Your task to perform on an android device: open sync settings in chrome Image 0: 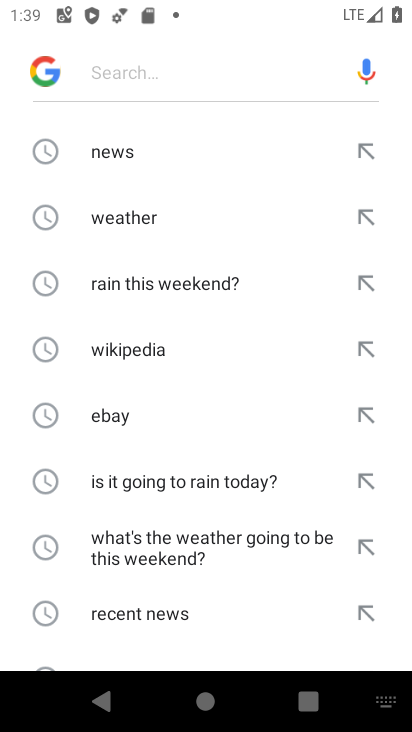
Step 0: press home button
Your task to perform on an android device: open sync settings in chrome Image 1: 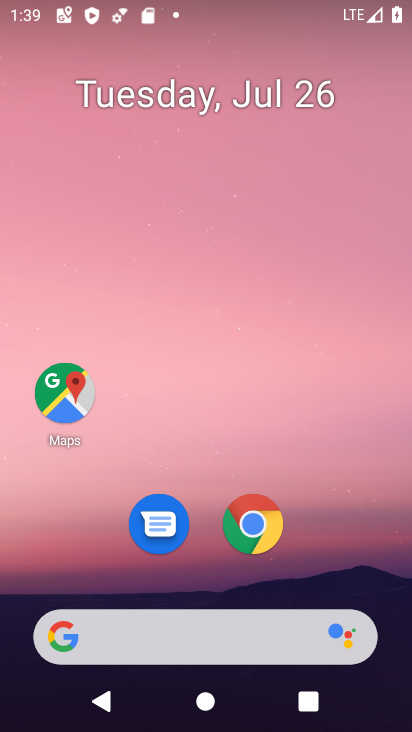
Step 1: click (252, 512)
Your task to perform on an android device: open sync settings in chrome Image 2: 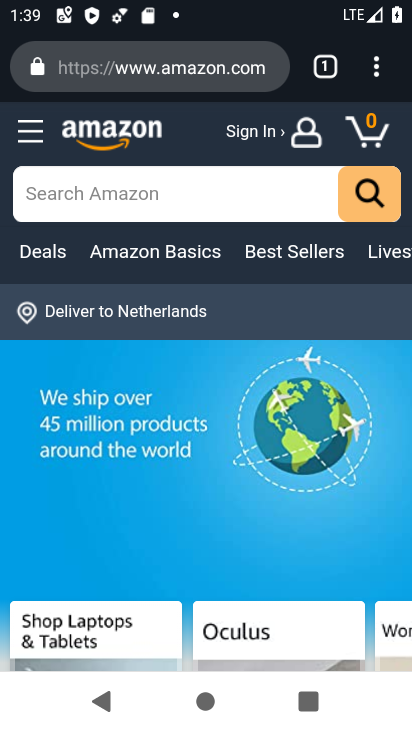
Step 2: click (378, 63)
Your task to perform on an android device: open sync settings in chrome Image 3: 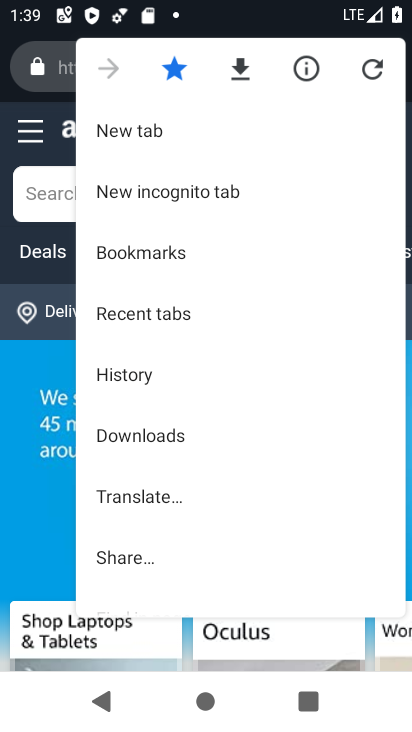
Step 3: drag from (259, 503) to (309, 149)
Your task to perform on an android device: open sync settings in chrome Image 4: 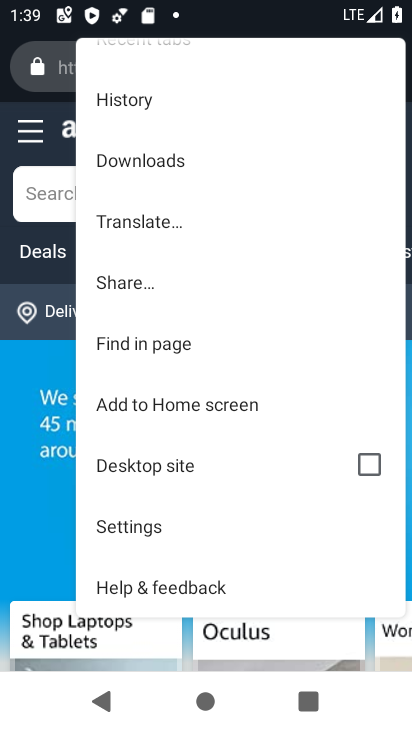
Step 4: click (151, 520)
Your task to perform on an android device: open sync settings in chrome Image 5: 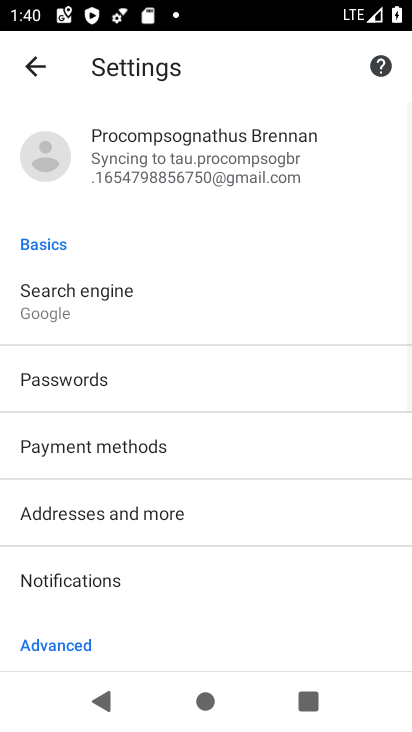
Step 5: click (253, 156)
Your task to perform on an android device: open sync settings in chrome Image 6: 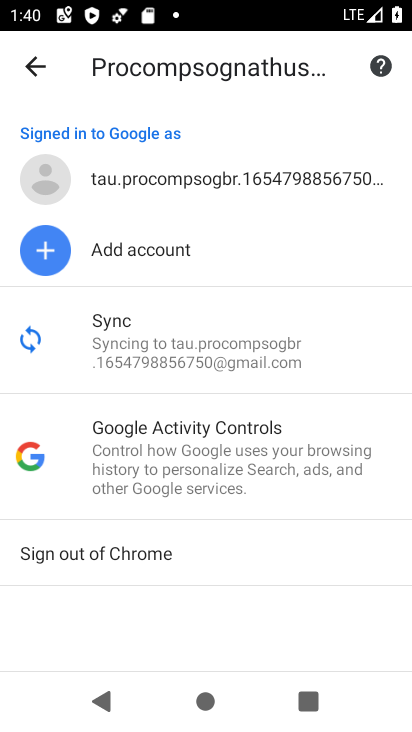
Step 6: click (196, 332)
Your task to perform on an android device: open sync settings in chrome Image 7: 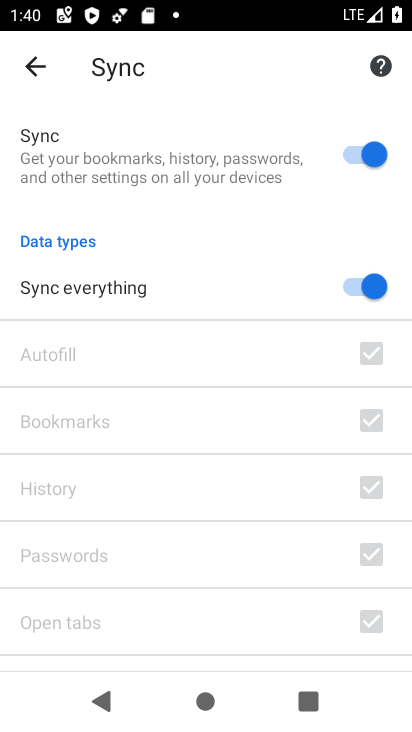
Step 7: task complete